Your task to perform on an android device: What is the recent news? Image 0: 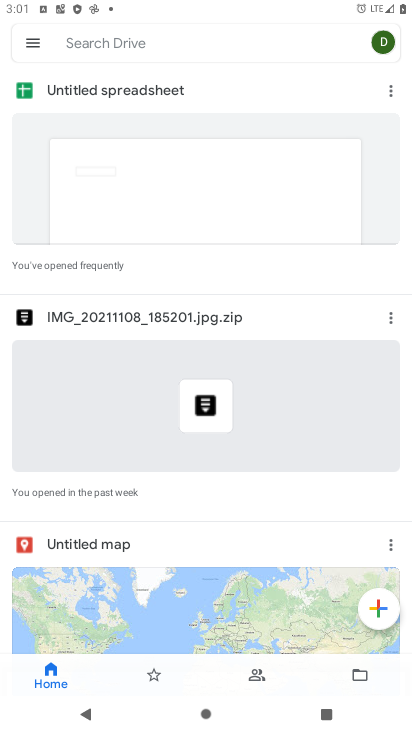
Step 0: press home button
Your task to perform on an android device: What is the recent news? Image 1: 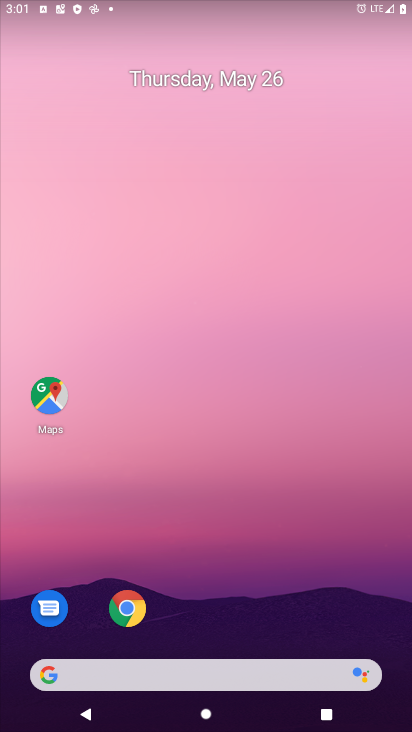
Step 1: task complete